Your task to perform on an android device: show emergency info Image 0: 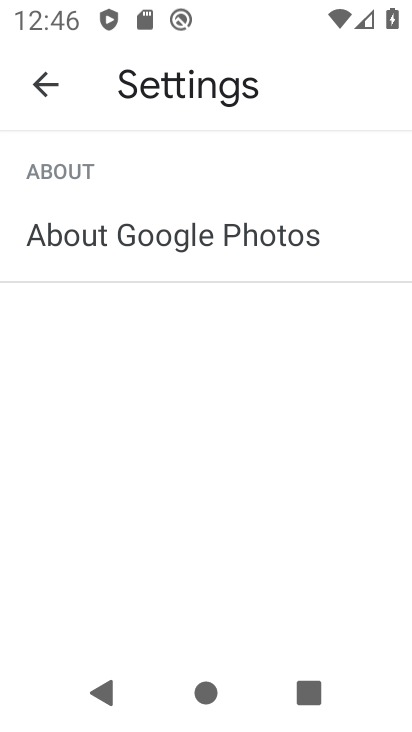
Step 0: press home button
Your task to perform on an android device: show emergency info Image 1: 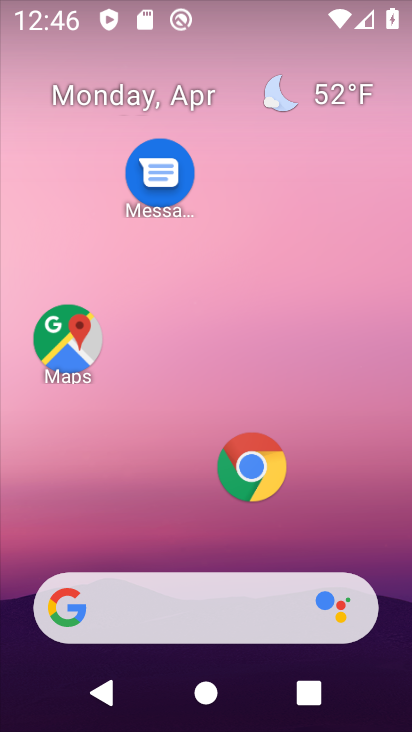
Step 1: drag from (188, 545) to (193, 147)
Your task to perform on an android device: show emergency info Image 2: 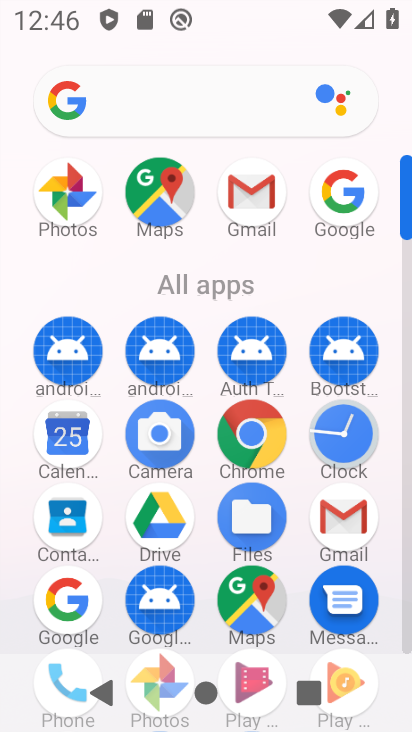
Step 2: drag from (195, 541) to (240, 193)
Your task to perform on an android device: show emergency info Image 3: 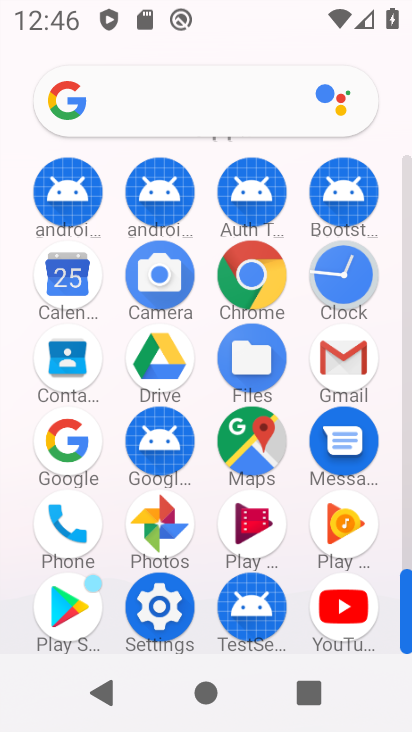
Step 3: click (157, 591)
Your task to perform on an android device: show emergency info Image 4: 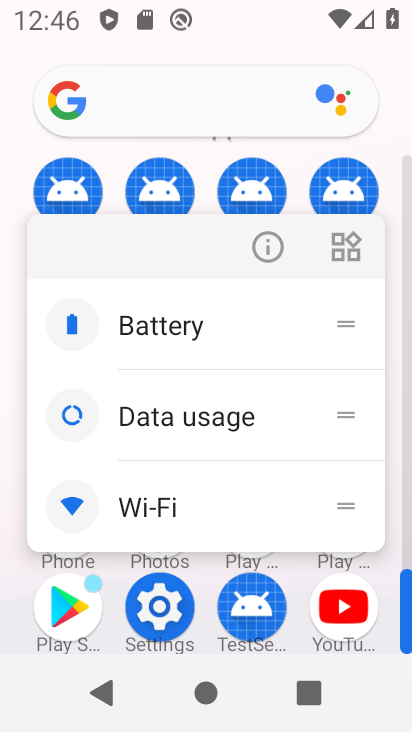
Step 4: click (153, 600)
Your task to perform on an android device: show emergency info Image 5: 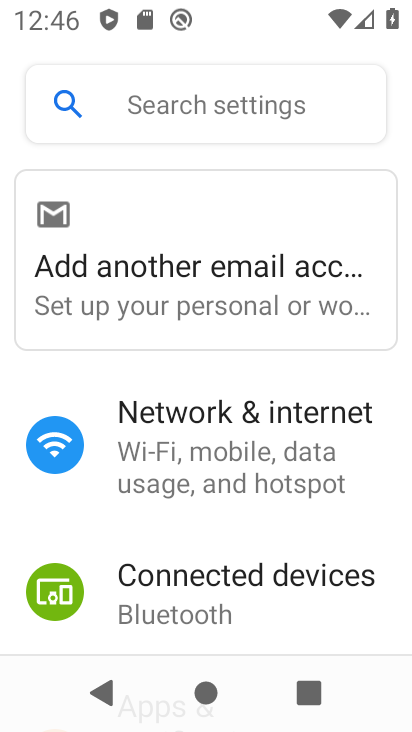
Step 5: drag from (227, 547) to (254, 194)
Your task to perform on an android device: show emergency info Image 6: 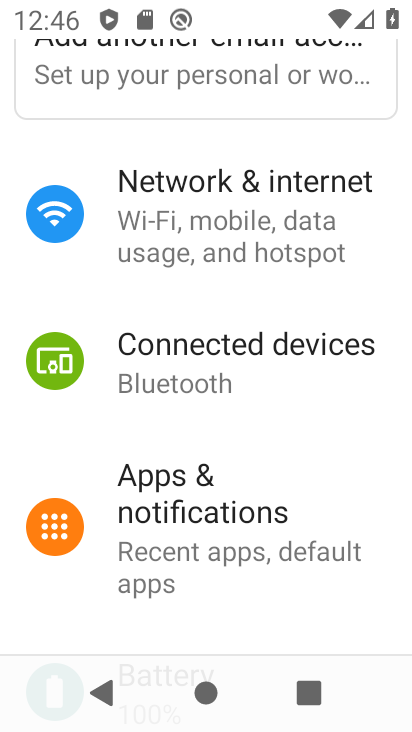
Step 6: drag from (239, 566) to (260, 276)
Your task to perform on an android device: show emergency info Image 7: 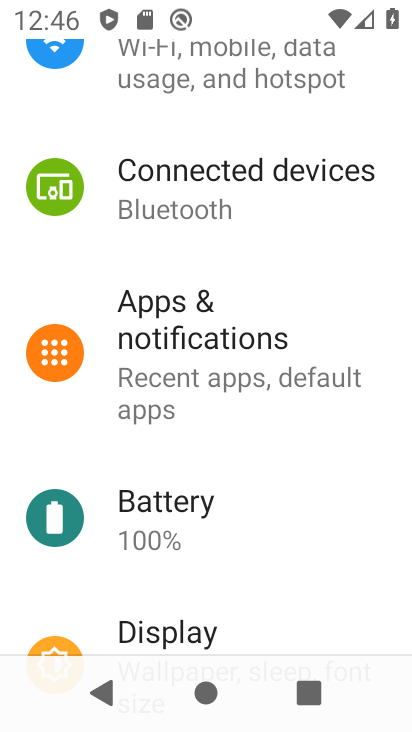
Step 7: drag from (212, 572) to (265, 238)
Your task to perform on an android device: show emergency info Image 8: 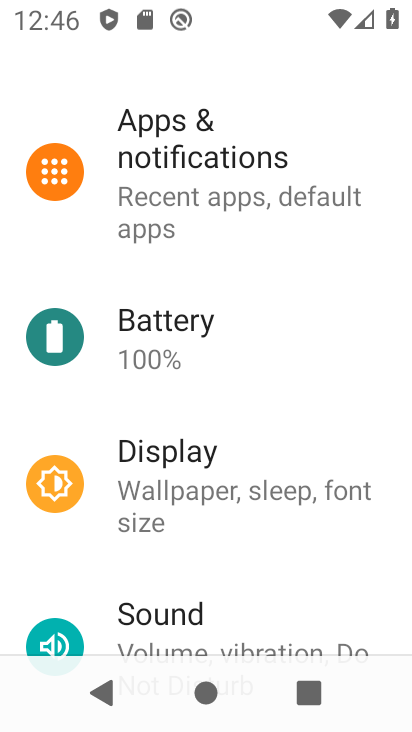
Step 8: drag from (250, 481) to (276, 249)
Your task to perform on an android device: show emergency info Image 9: 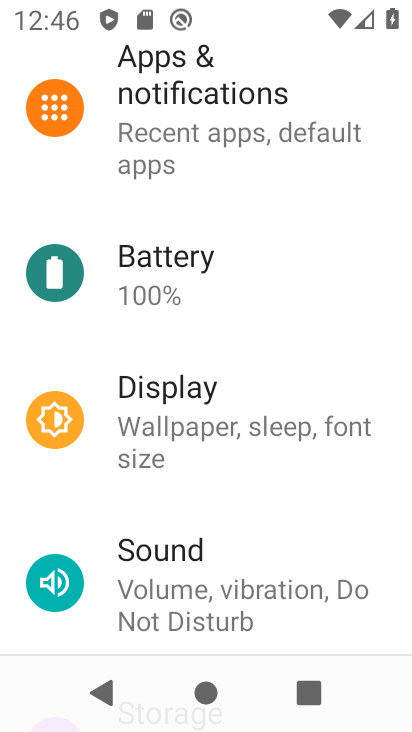
Step 9: drag from (261, 594) to (282, 228)
Your task to perform on an android device: show emergency info Image 10: 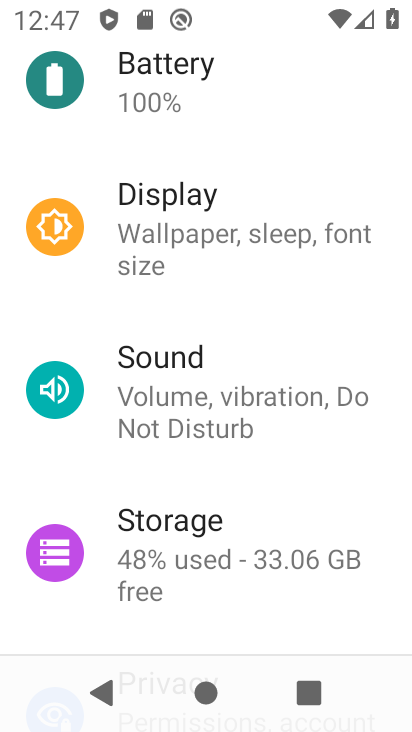
Step 10: drag from (263, 466) to (293, 241)
Your task to perform on an android device: show emergency info Image 11: 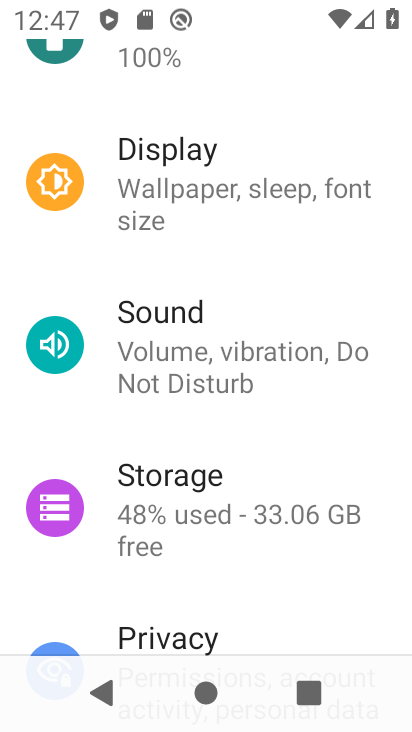
Step 11: drag from (261, 481) to (276, 280)
Your task to perform on an android device: show emergency info Image 12: 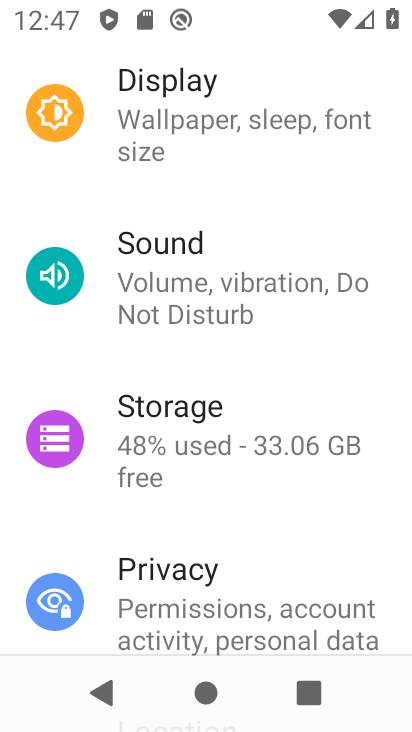
Step 12: drag from (272, 526) to (298, 300)
Your task to perform on an android device: show emergency info Image 13: 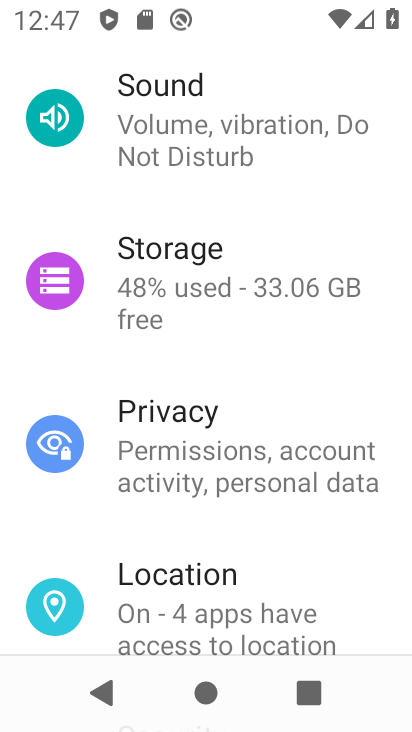
Step 13: drag from (293, 522) to (281, 140)
Your task to perform on an android device: show emergency info Image 14: 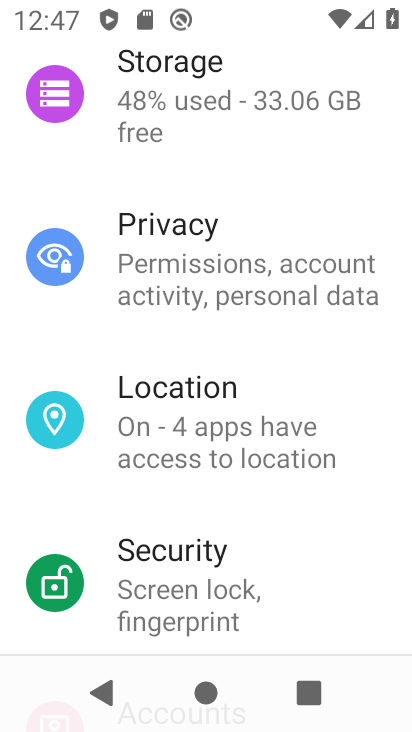
Step 14: drag from (251, 425) to (274, 178)
Your task to perform on an android device: show emergency info Image 15: 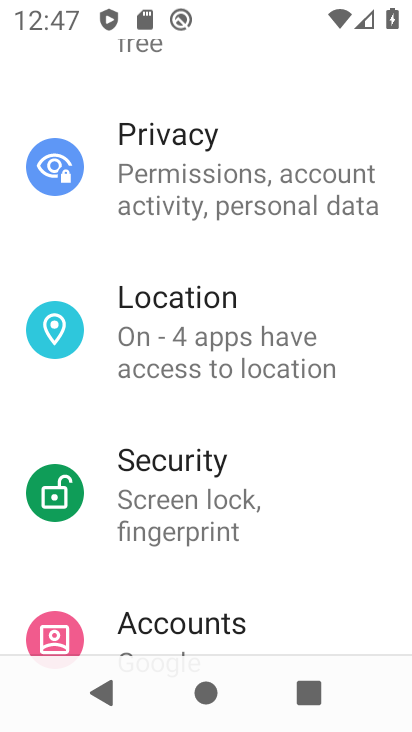
Step 15: drag from (210, 471) to (183, 92)
Your task to perform on an android device: show emergency info Image 16: 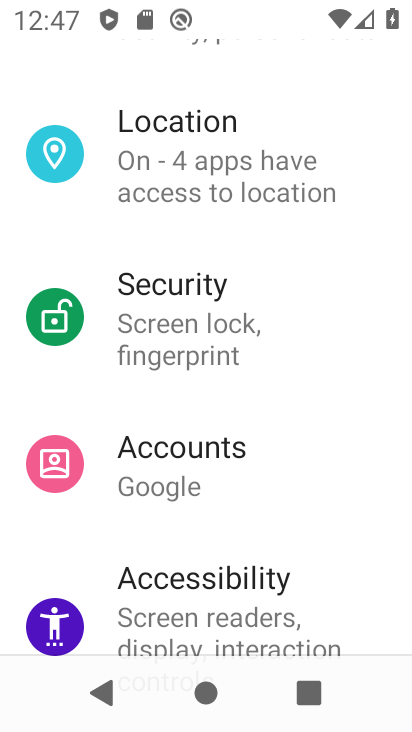
Step 16: drag from (240, 521) to (266, 183)
Your task to perform on an android device: show emergency info Image 17: 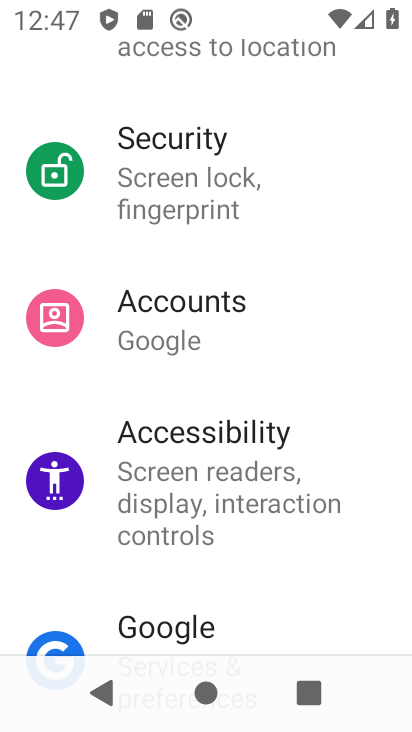
Step 17: drag from (284, 580) to (278, 273)
Your task to perform on an android device: show emergency info Image 18: 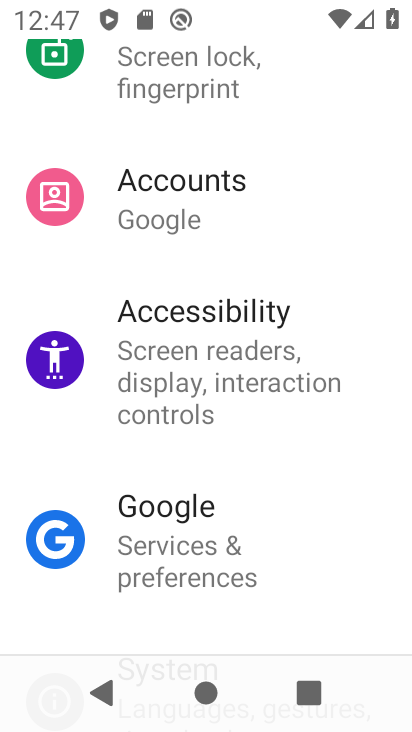
Step 18: drag from (291, 516) to (305, 299)
Your task to perform on an android device: show emergency info Image 19: 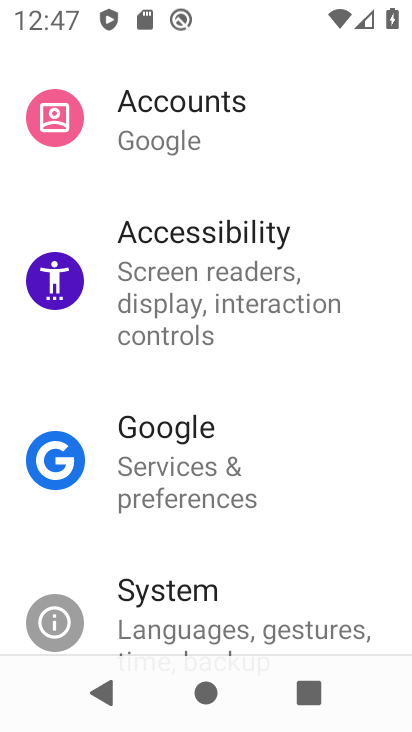
Step 19: drag from (257, 599) to (286, 254)
Your task to perform on an android device: show emergency info Image 20: 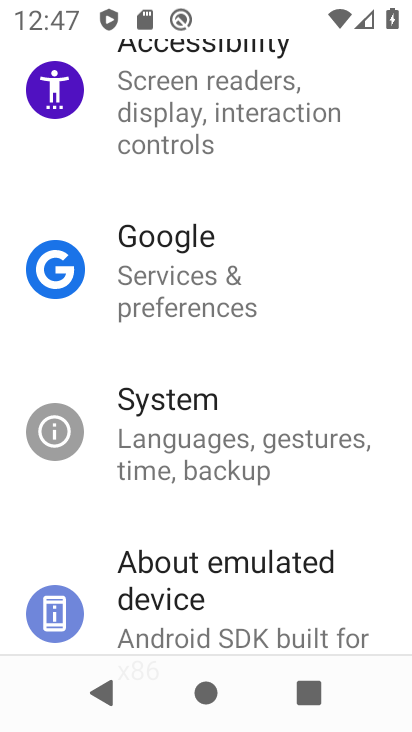
Step 20: drag from (235, 575) to (257, 213)
Your task to perform on an android device: show emergency info Image 21: 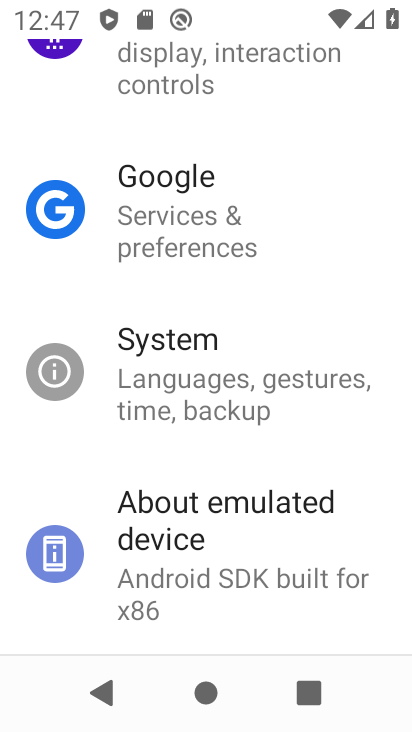
Step 21: click (223, 509)
Your task to perform on an android device: show emergency info Image 22: 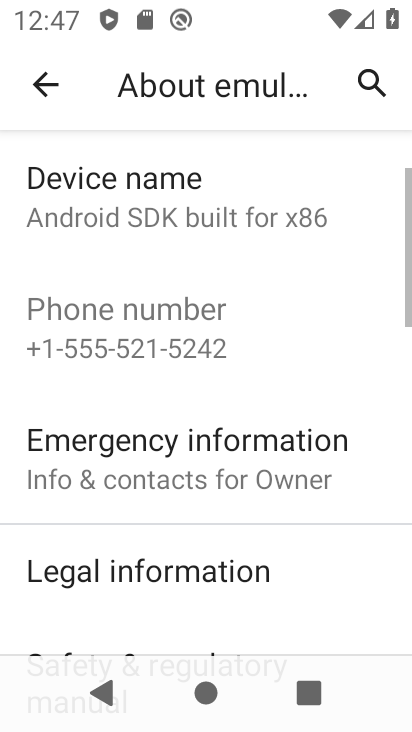
Step 22: click (223, 444)
Your task to perform on an android device: show emergency info Image 23: 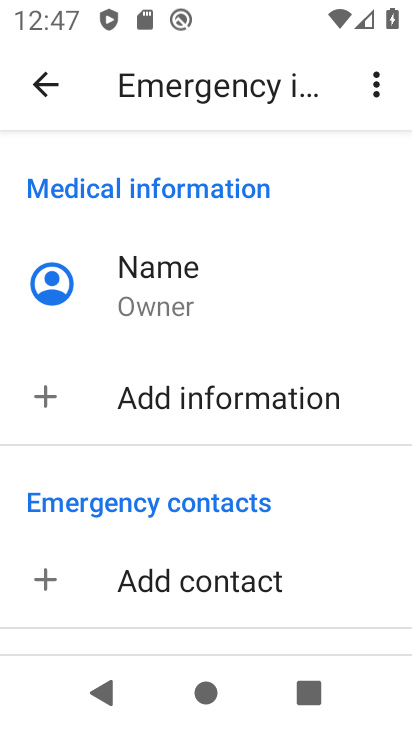
Step 23: task complete